Your task to perform on an android device: Open CNN.com Image 0: 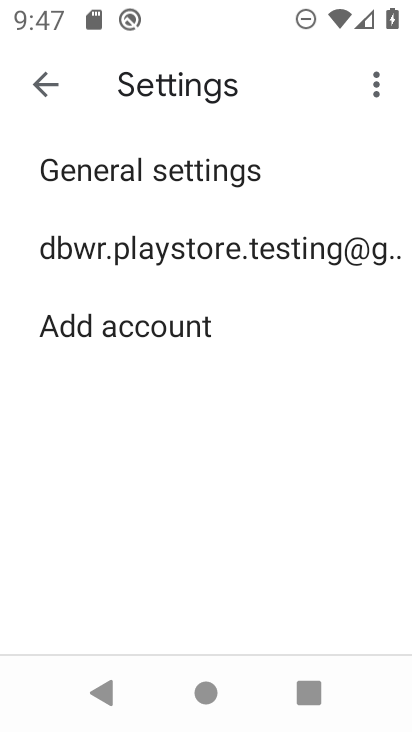
Step 0: press home button
Your task to perform on an android device: Open CNN.com Image 1: 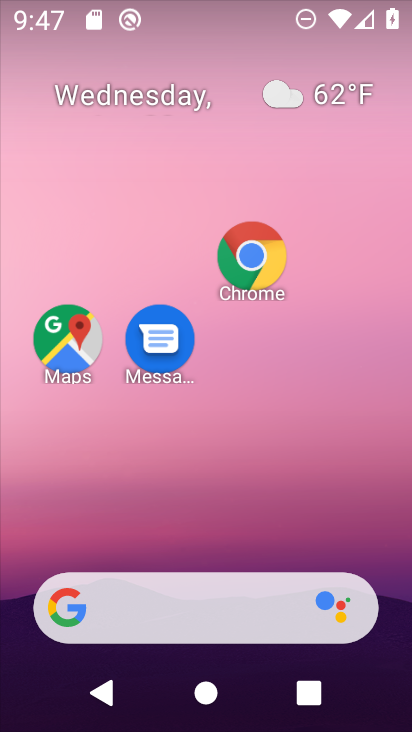
Step 1: drag from (265, 463) to (241, 54)
Your task to perform on an android device: Open CNN.com Image 2: 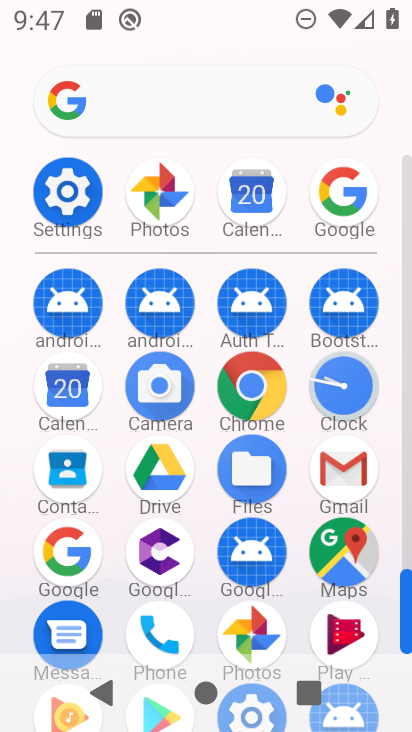
Step 2: click (347, 188)
Your task to perform on an android device: Open CNN.com Image 3: 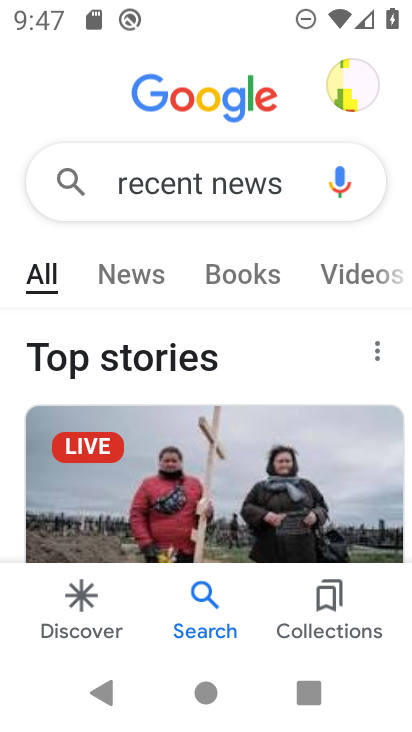
Step 3: click (288, 186)
Your task to perform on an android device: Open CNN.com Image 4: 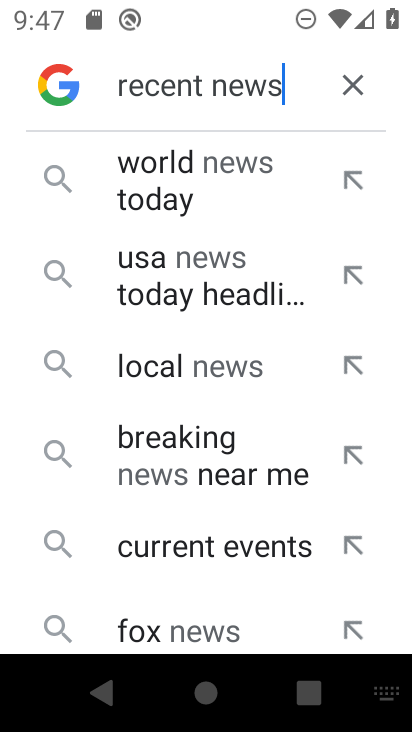
Step 4: click (348, 87)
Your task to perform on an android device: Open CNN.com Image 5: 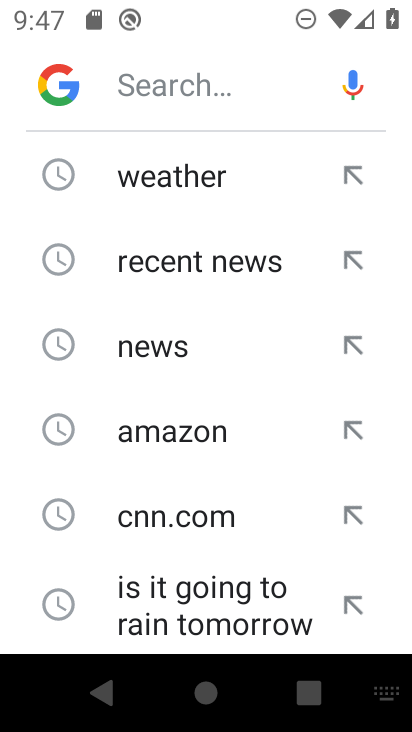
Step 5: click (188, 518)
Your task to perform on an android device: Open CNN.com Image 6: 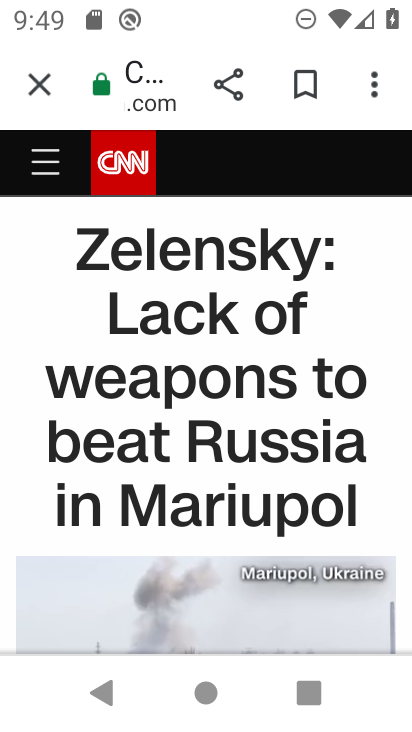
Step 6: task complete